Your task to perform on an android device: turn on javascript in the chrome app Image 0: 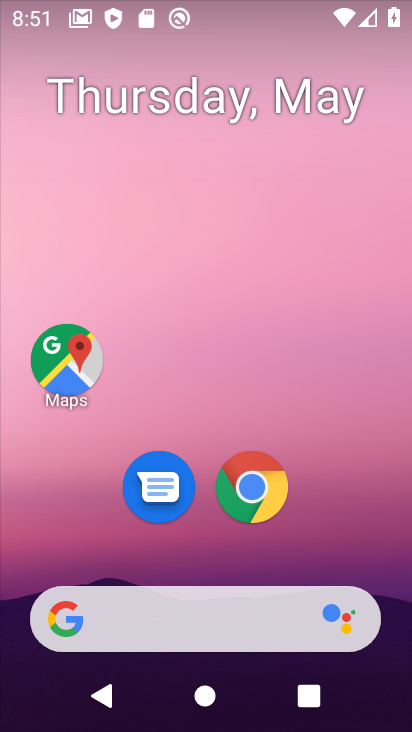
Step 0: click (254, 484)
Your task to perform on an android device: turn on javascript in the chrome app Image 1: 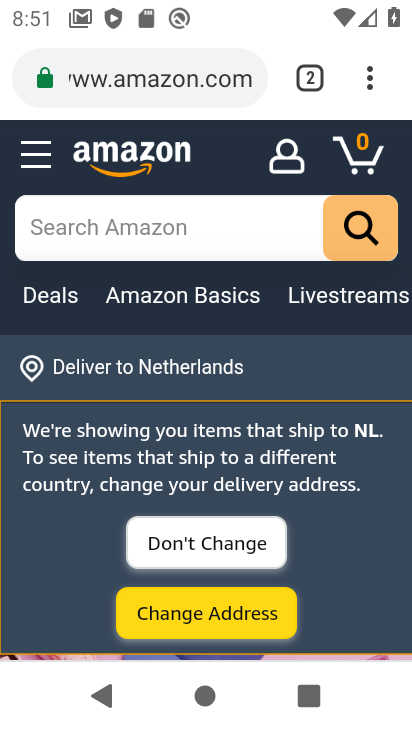
Step 1: click (367, 84)
Your task to perform on an android device: turn on javascript in the chrome app Image 2: 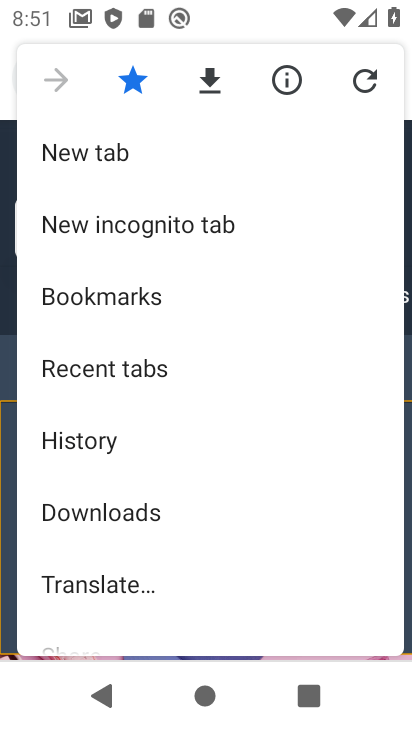
Step 2: drag from (262, 476) to (141, 46)
Your task to perform on an android device: turn on javascript in the chrome app Image 3: 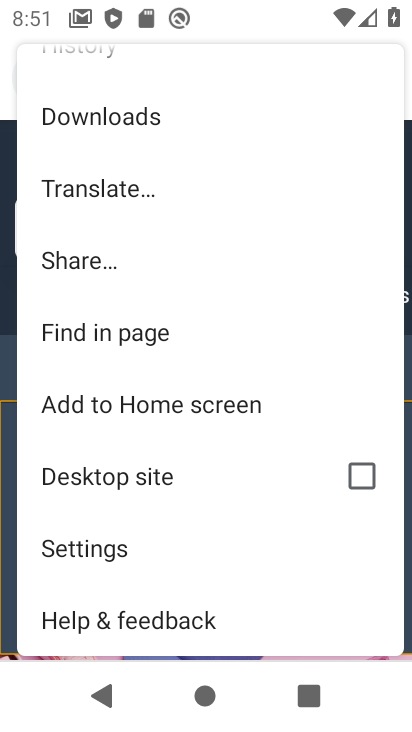
Step 3: click (113, 536)
Your task to perform on an android device: turn on javascript in the chrome app Image 4: 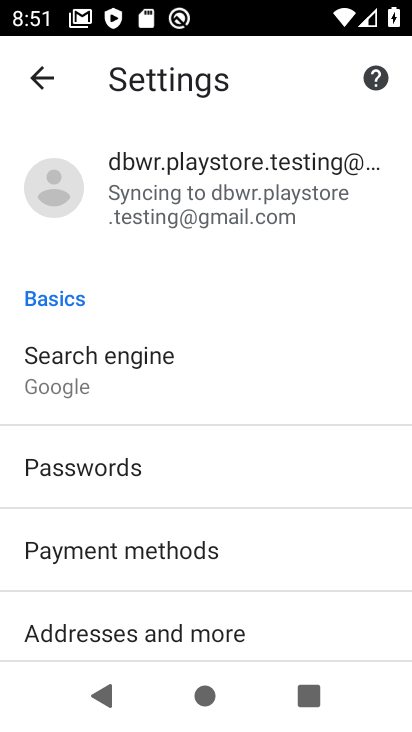
Step 4: drag from (324, 550) to (219, 72)
Your task to perform on an android device: turn on javascript in the chrome app Image 5: 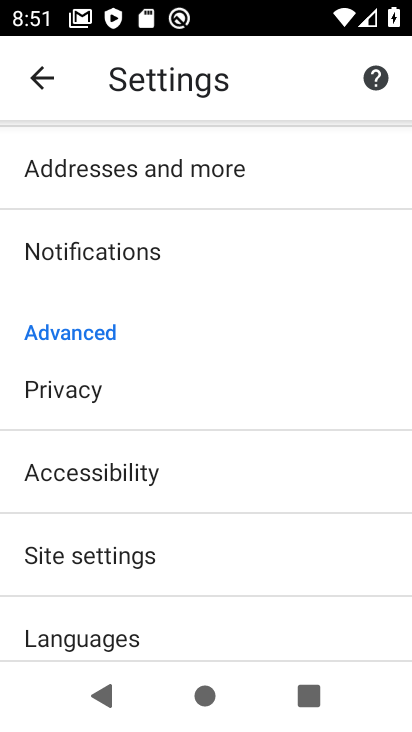
Step 5: click (142, 562)
Your task to perform on an android device: turn on javascript in the chrome app Image 6: 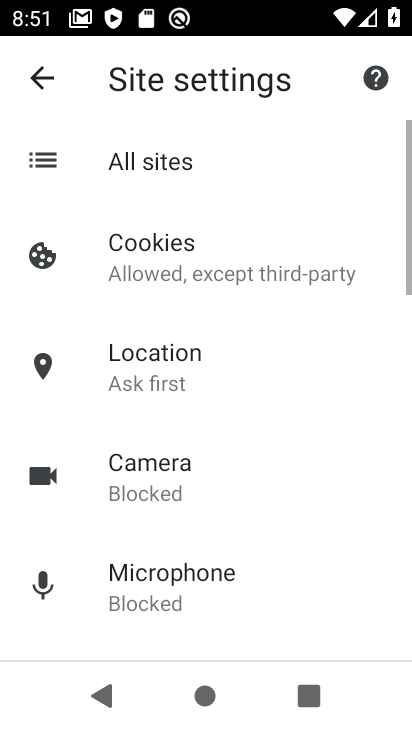
Step 6: drag from (142, 562) to (39, 11)
Your task to perform on an android device: turn on javascript in the chrome app Image 7: 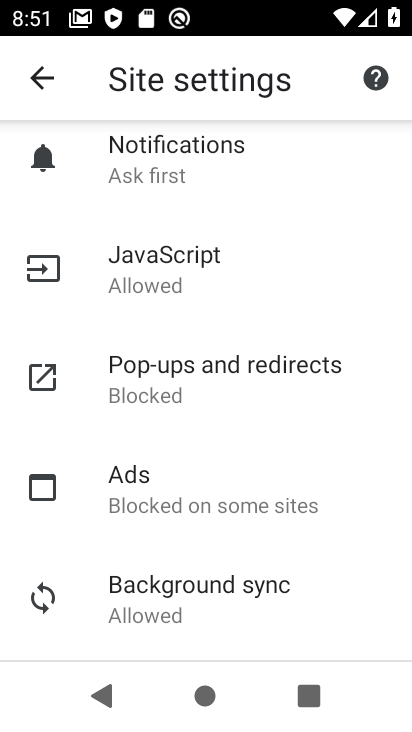
Step 7: click (152, 290)
Your task to perform on an android device: turn on javascript in the chrome app Image 8: 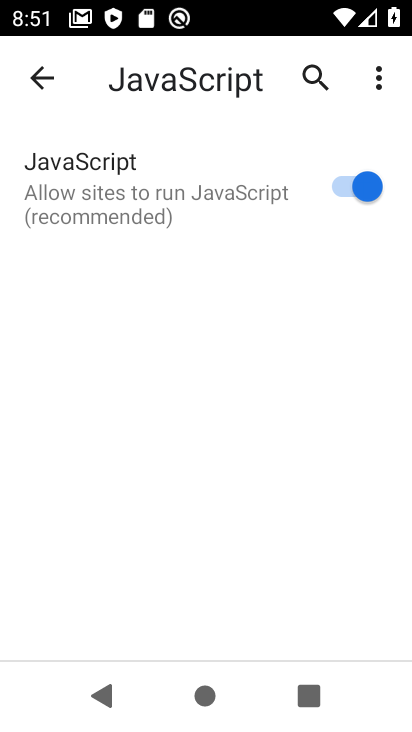
Step 8: task complete